Your task to perform on an android device: What is the speed of a bicycle? Image 0: 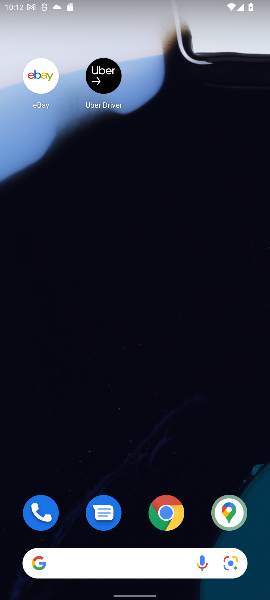
Step 0: click (117, 562)
Your task to perform on an android device: What is the speed of a bicycle? Image 1: 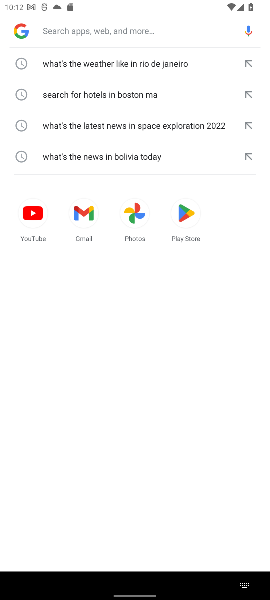
Step 1: type "What is the speed of a bicycle?"
Your task to perform on an android device: What is the speed of a bicycle? Image 2: 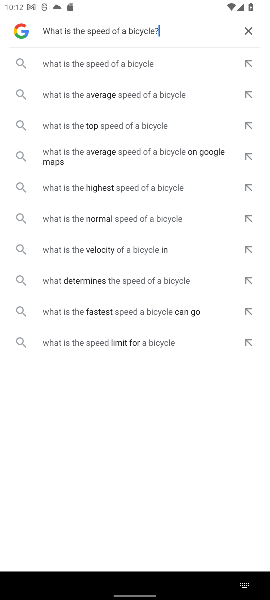
Step 2: click (85, 64)
Your task to perform on an android device: What is the speed of a bicycle? Image 3: 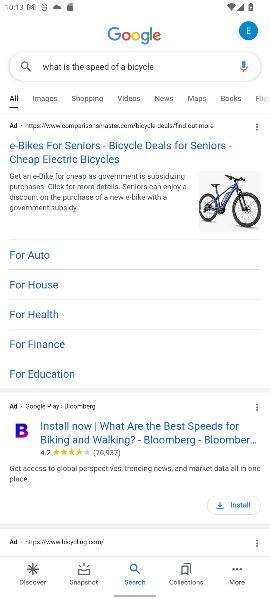
Step 3: task complete